Your task to perform on an android device: Go to display settings Image 0: 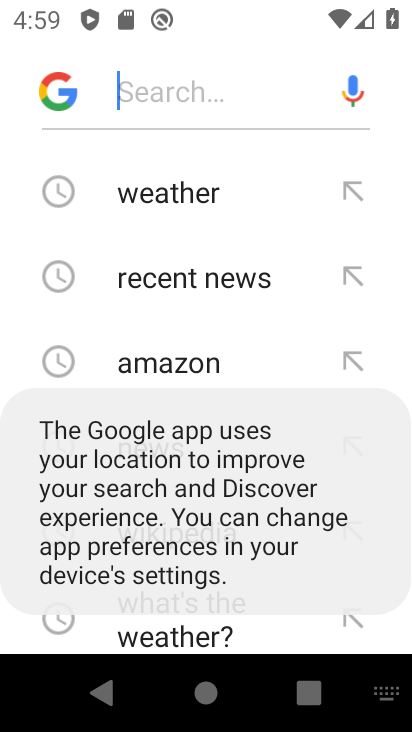
Step 0: press home button
Your task to perform on an android device: Go to display settings Image 1: 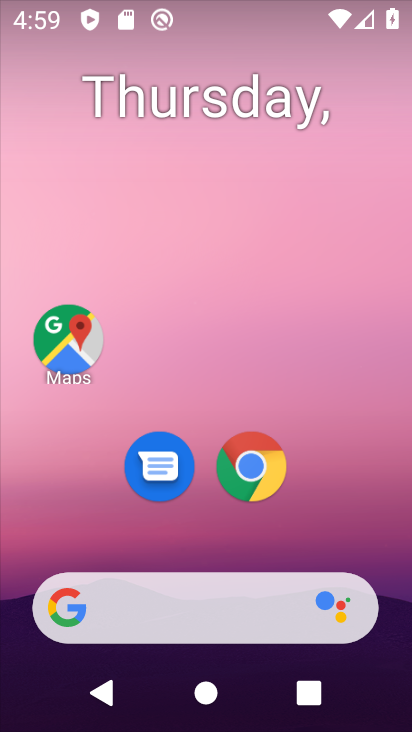
Step 1: drag from (331, 501) to (358, 62)
Your task to perform on an android device: Go to display settings Image 2: 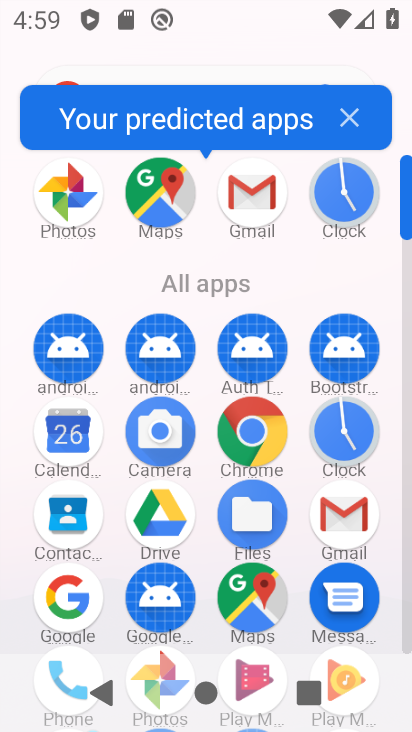
Step 2: drag from (293, 284) to (307, 44)
Your task to perform on an android device: Go to display settings Image 3: 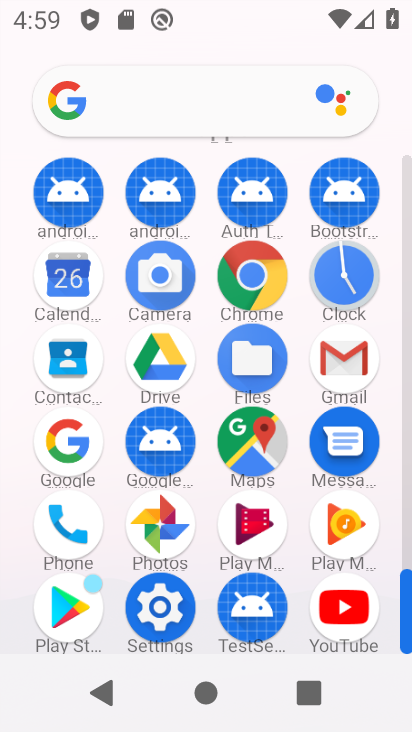
Step 3: click (158, 601)
Your task to perform on an android device: Go to display settings Image 4: 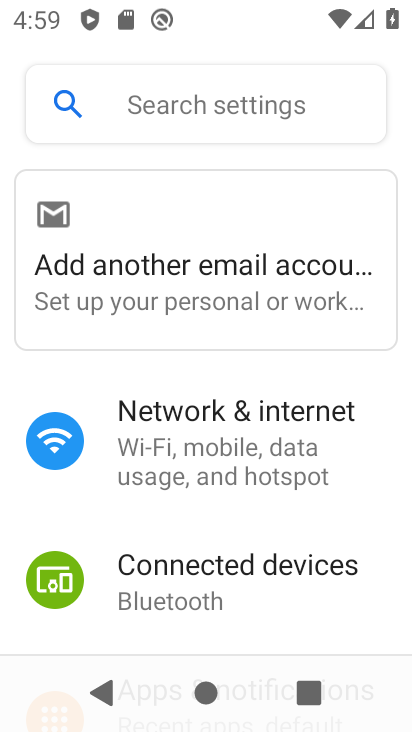
Step 4: drag from (192, 553) to (234, 152)
Your task to perform on an android device: Go to display settings Image 5: 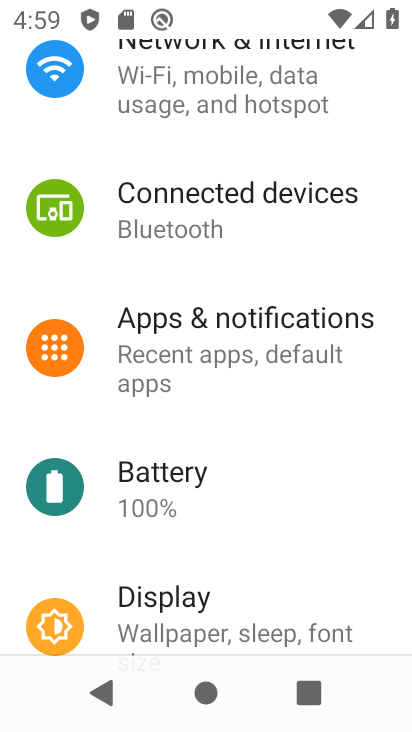
Step 5: drag from (230, 583) to (274, 258)
Your task to perform on an android device: Go to display settings Image 6: 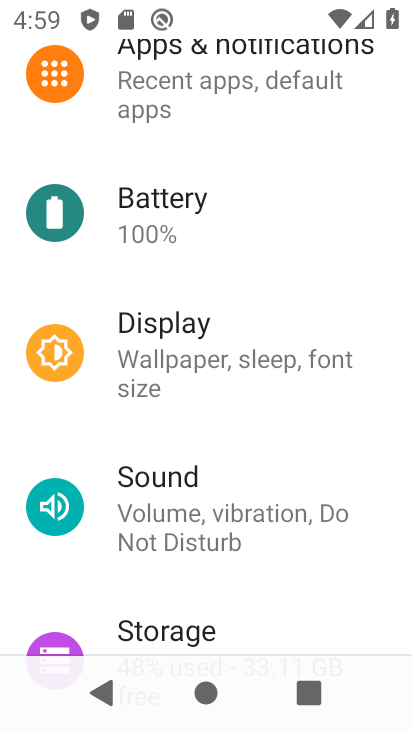
Step 6: click (152, 348)
Your task to perform on an android device: Go to display settings Image 7: 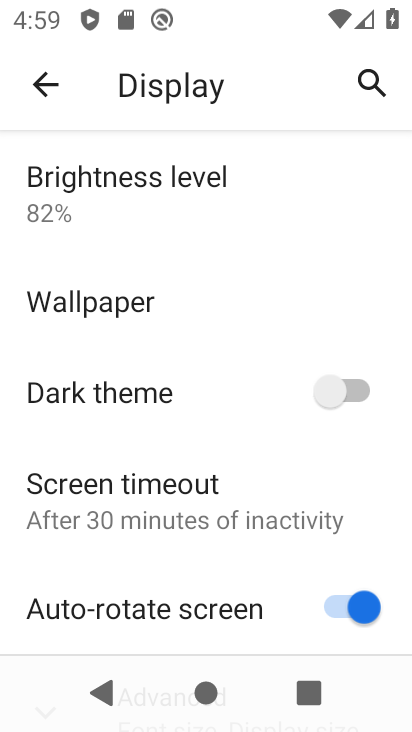
Step 7: task complete